Your task to perform on an android device: Open location settings Image 0: 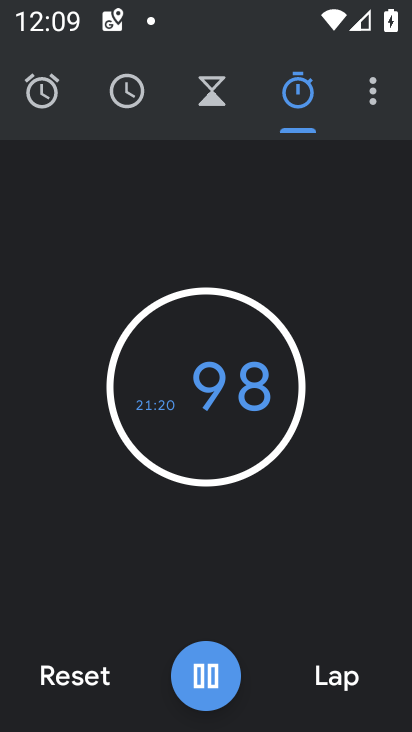
Step 0: press home button
Your task to perform on an android device: Open location settings Image 1: 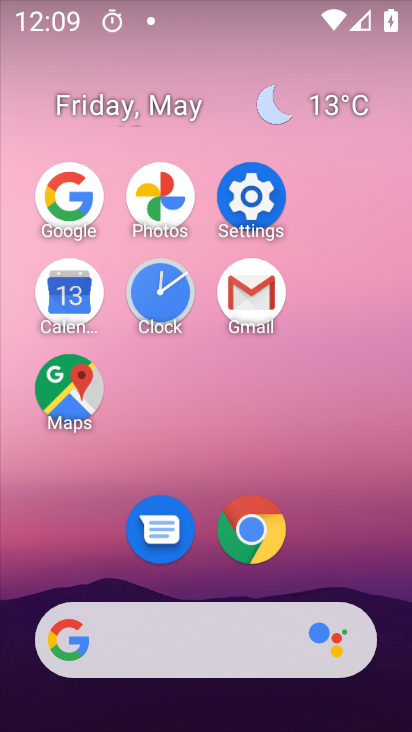
Step 1: click (247, 216)
Your task to perform on an android device: Open location settings Image 2: 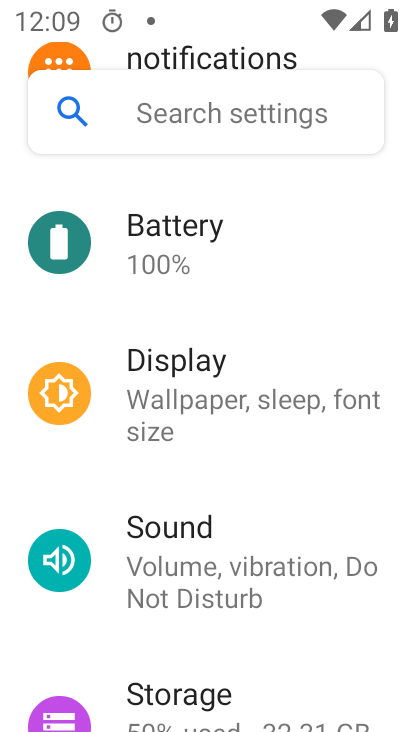
Step 2: drag from (289, 640) to (350, 217)
Your task to perform on an android device: Open location settings Image 3: 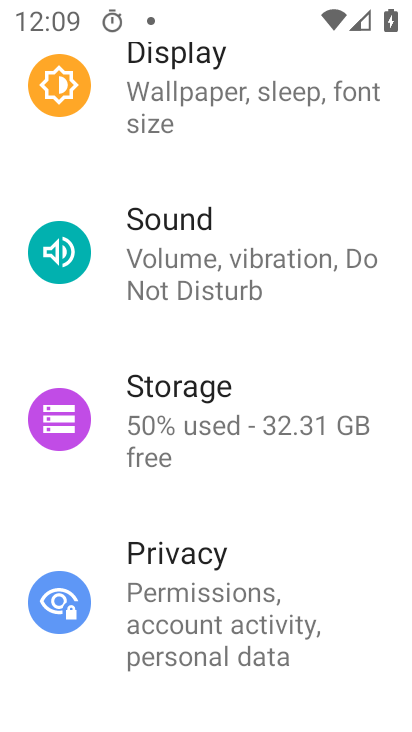
Step 3: drag from (320, 585) to (276, 172)
Your task to perform on an android device: Open location settings Image 4: 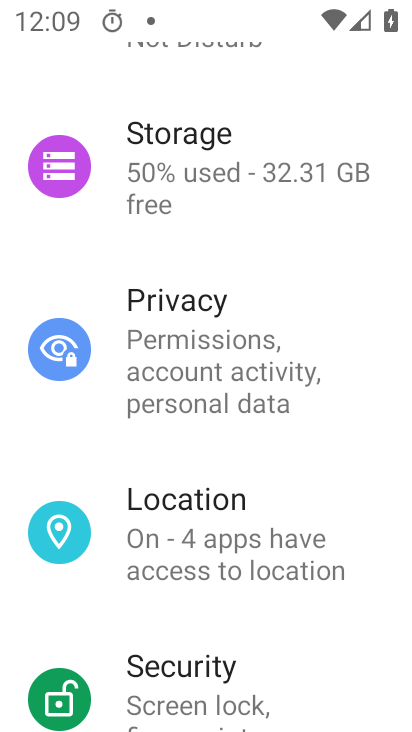
Step 4: click (258, 515)
Your task to perform on an android device: Open location settings Image 5: 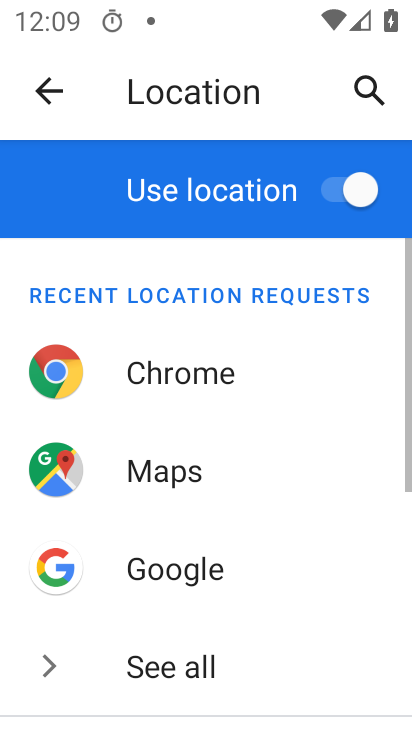
Step 5: task complete